Your task to perform on an android device: turn on sleep mode Image 0: 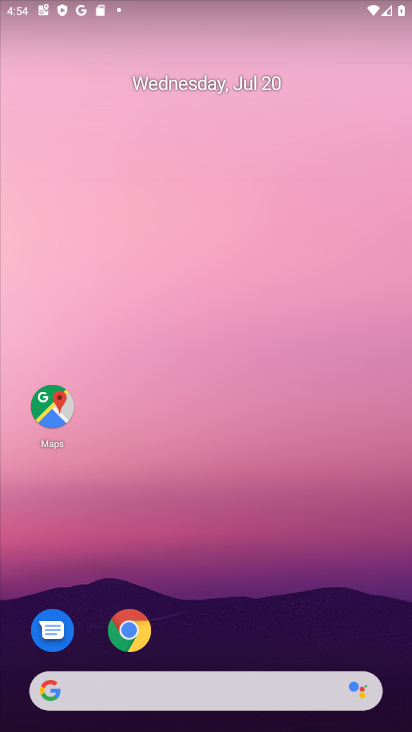
Step 0: drag from (217, 692) to (229, 201)
Your task to perform on an android device: turn on sleep mode Image 1: 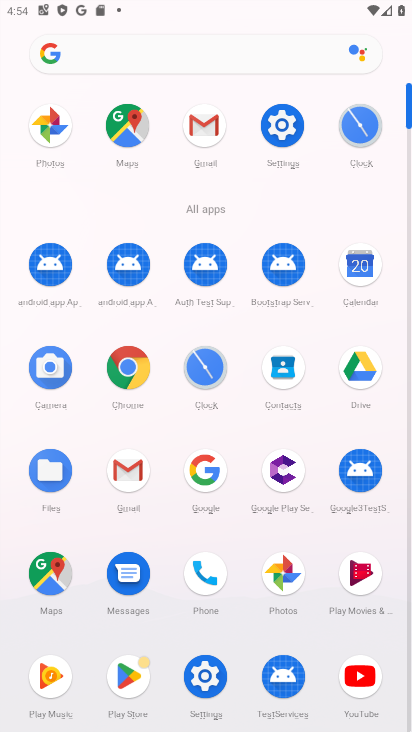
Step 1: click (283, 124)
Your task to perform on an android device: turn on sleep mode Image 2: 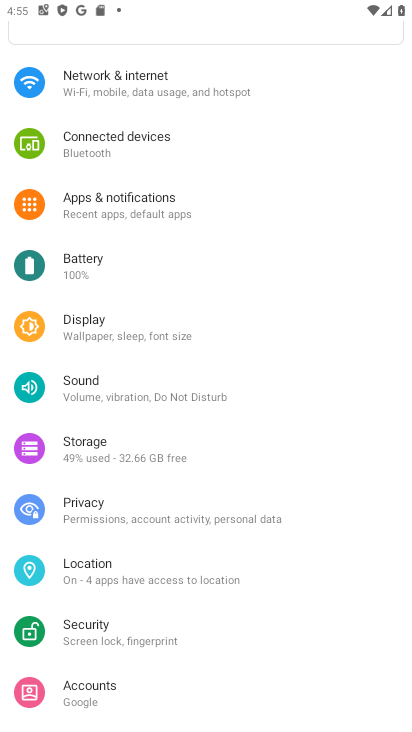
Step 2: click (138, 217)
Your task to perform on an android device: turn on sleep mode Image 3: 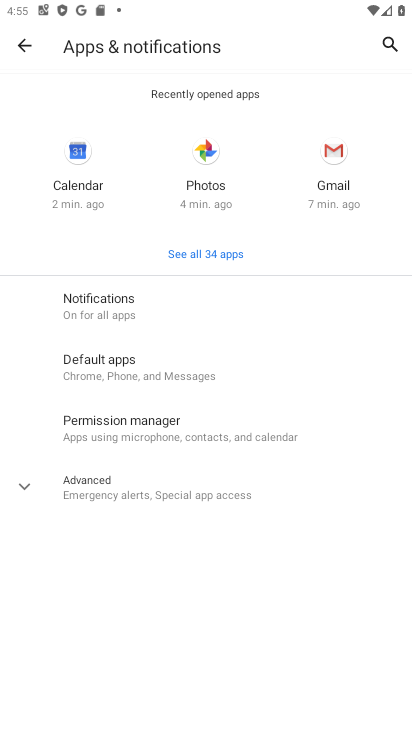
Step 3: click (107, 302)
Your task to perform on an android device: turn on sleep mode Image 4: 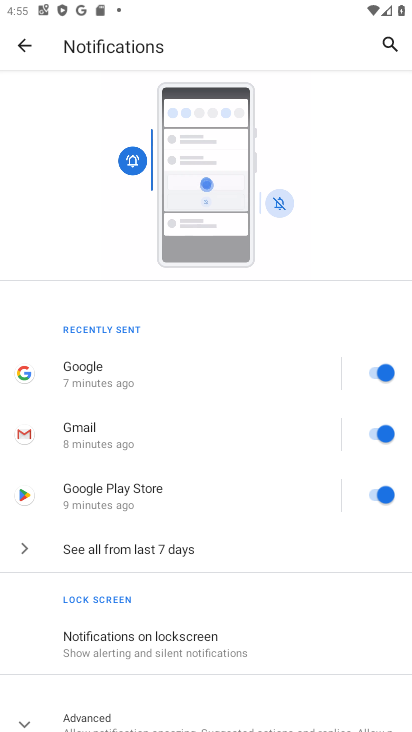
Step 4: press back button
Your task to perform on an android device: turn on sleep mode Image 5: 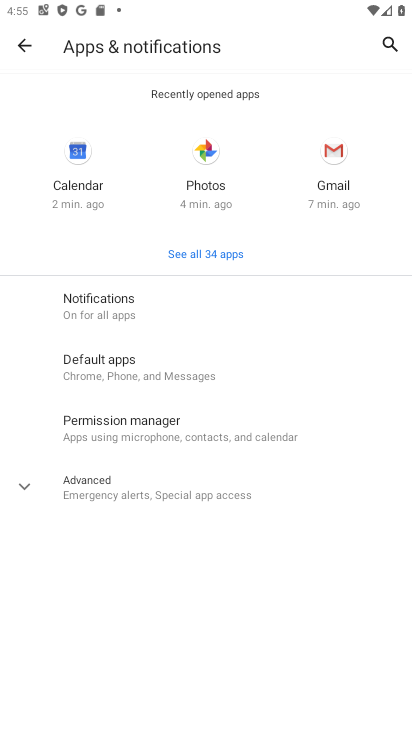
Step 5: press back button
Your task to perform on an android device: turn on sleep mode Image 6: 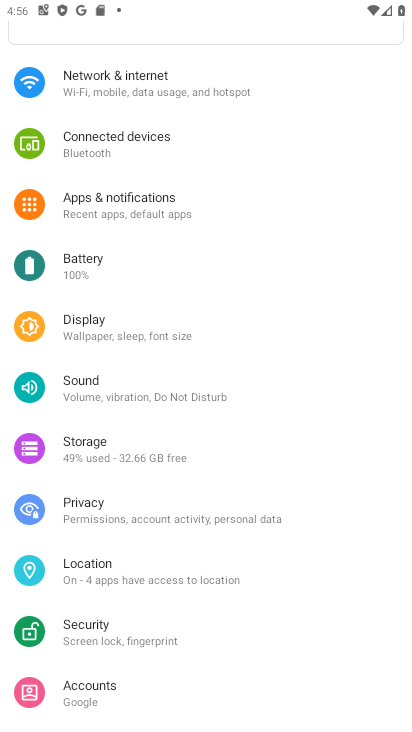
Step 6: click (121, 402)
Your task to perform on an android device: turn on sleep mode Image 7: 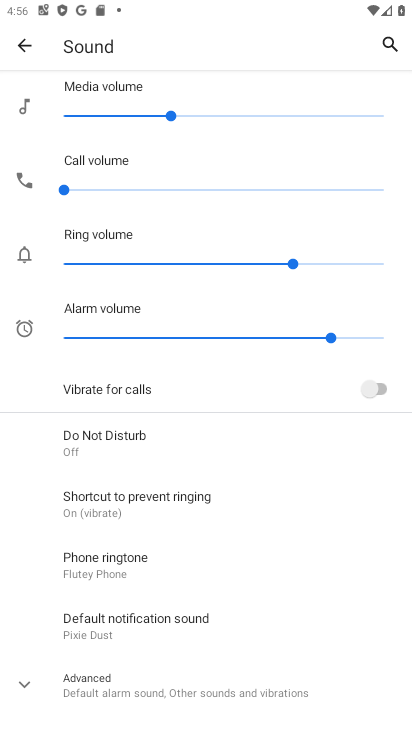
Step 7: press back button
Your task to perform on an android device: turn on sleep mode Image 8: 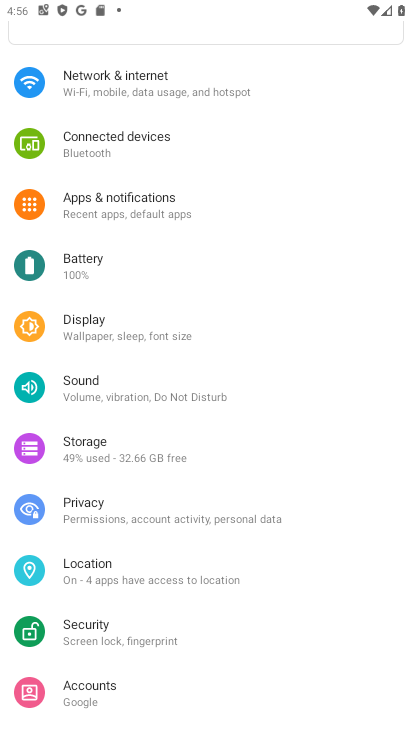
Step 8: click (93, 574)
Your task to perform on an android device: turn on sleep mode Image 9: 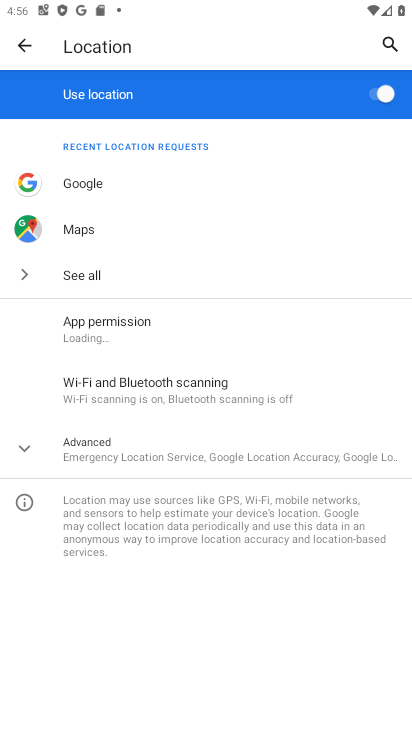
Step 9: task complete